Your task to perform on an android device: open device folders in google photos Image 0: 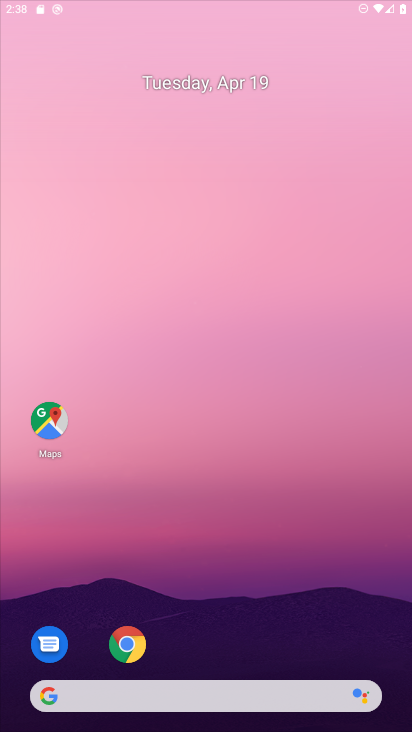
Step 0: click (227, 434)
Your task to perform on an android device: open device folders in google photos Image 1: 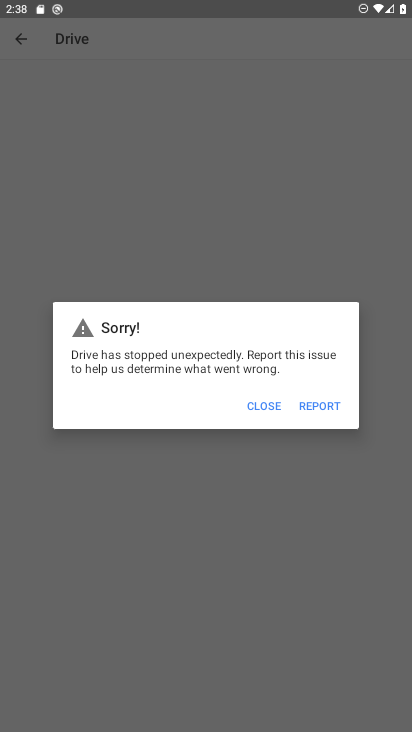
Step 1: press home button
Your task to perform on an android device: open device folders in google photos Image 2: 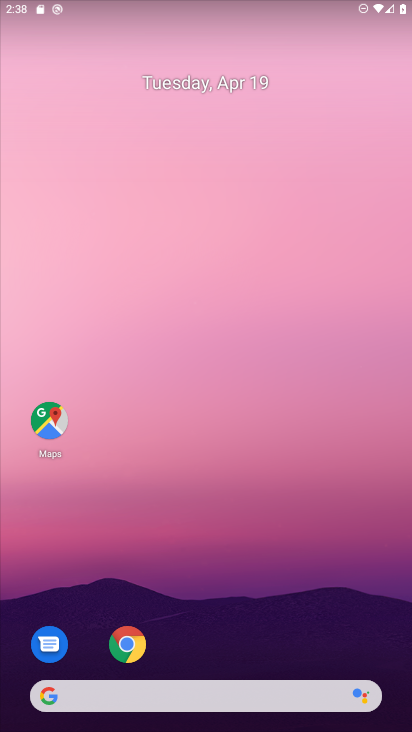
Step 2: drag from (277, 644) to (202, 70)
Your task to perform on an android device: open device folders in google photos Image 3: 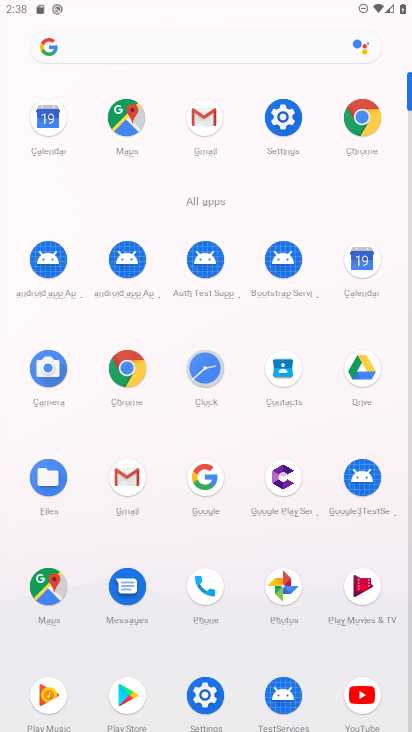
Step 3: click (282, 587)
Your task to perform on an android device: open device folders in google photos Image 4: 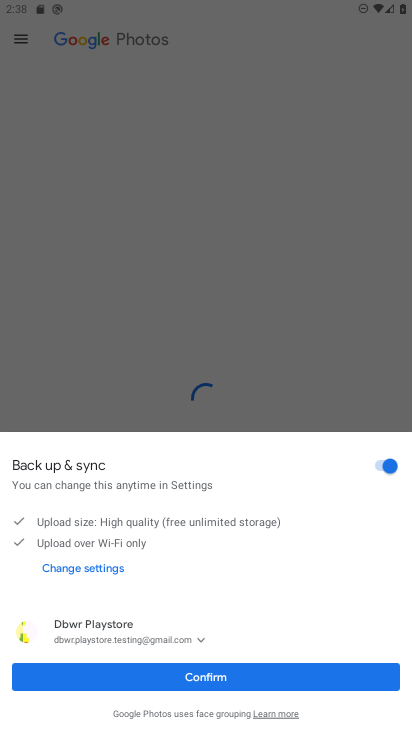
Step 4: click (211, 681)
Your task to perform on an android device: open device folders in google photos Image 5: 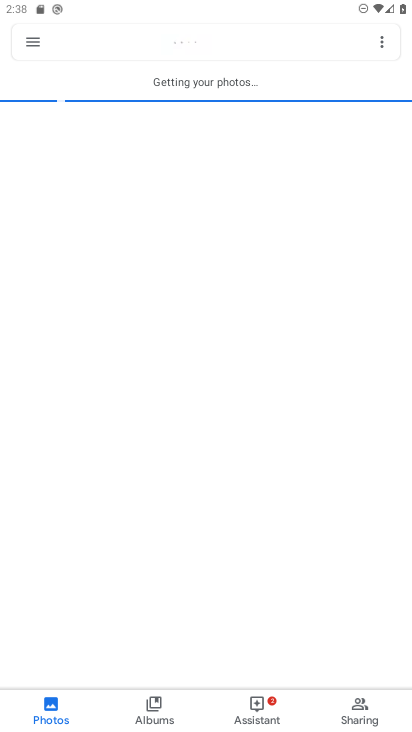
Step 5: click (31, 38)
Your task to perform on an android device: open device folders in google photos Image 6: 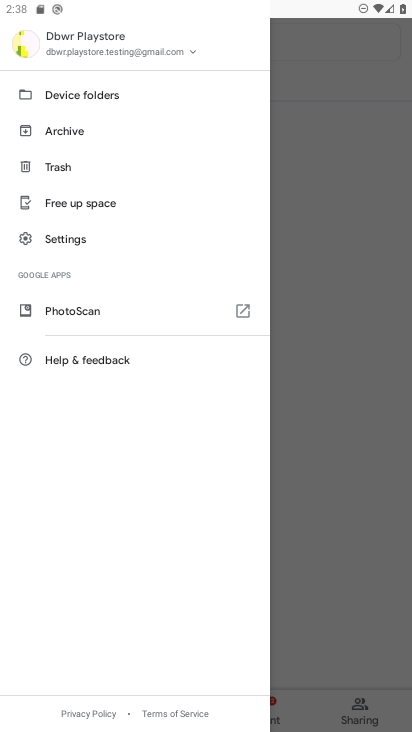
Step 6: click (119, 100)
Your task to perform on an android device: open device folders in google photos Image 7: 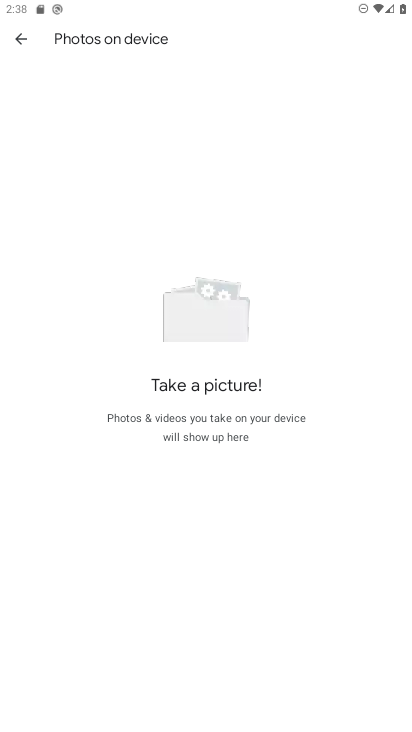
Step 7: task complete